Your task to perform on an android device: set an alarm Image 0: 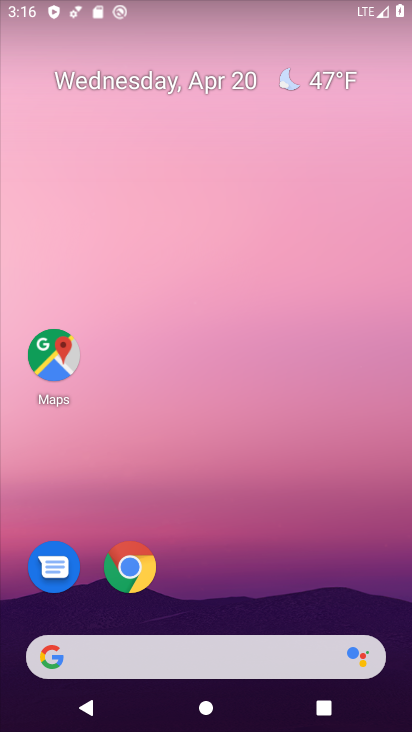
Step 0: drag from (146, 205) to (101, 50)
Your task to perform on an android device: set an alarm Image 1: 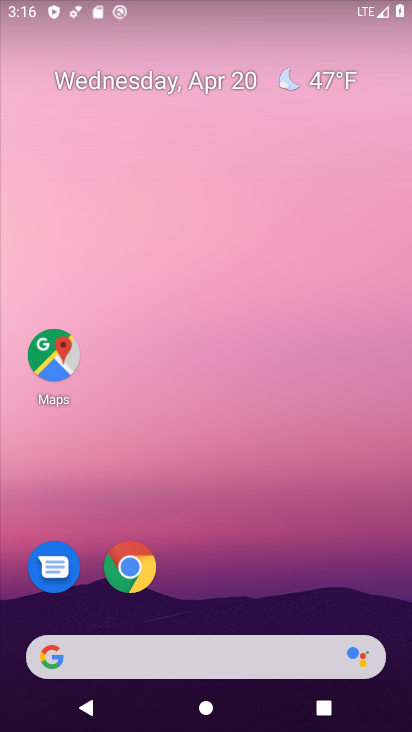
Step 1: drag from (243, 330) to (156, 5)
Your task to perform on an android device: set an alarm Image 2: 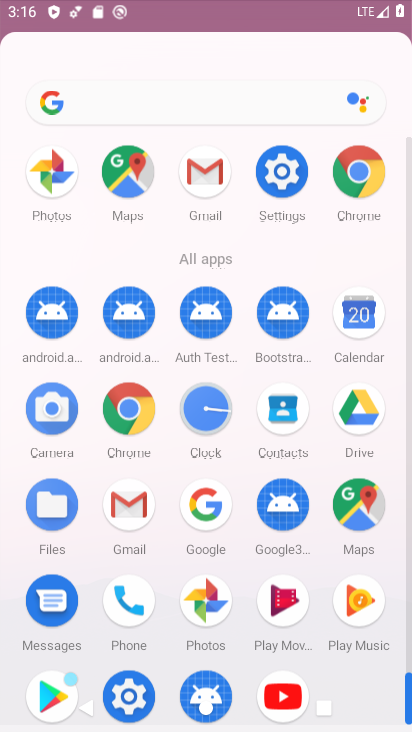
Step 2: drag from (33, 525) to (2, 230)
Your task to perform on an android device: set an alarm Image 3: 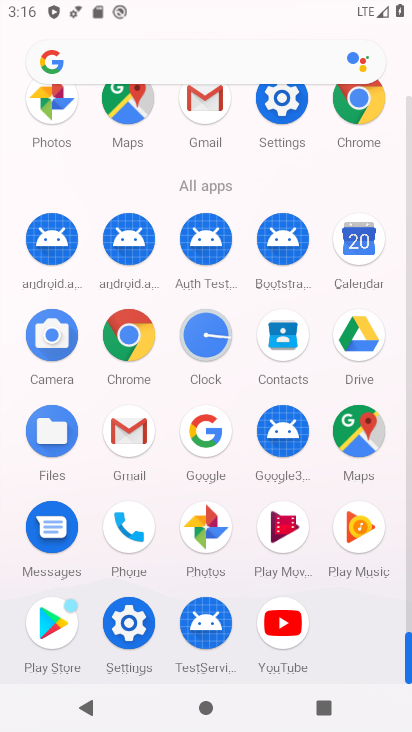
Step 3: drag from (22, 137) to (27, 318)
Your task to perform on an android device: set an alarm Image 4: 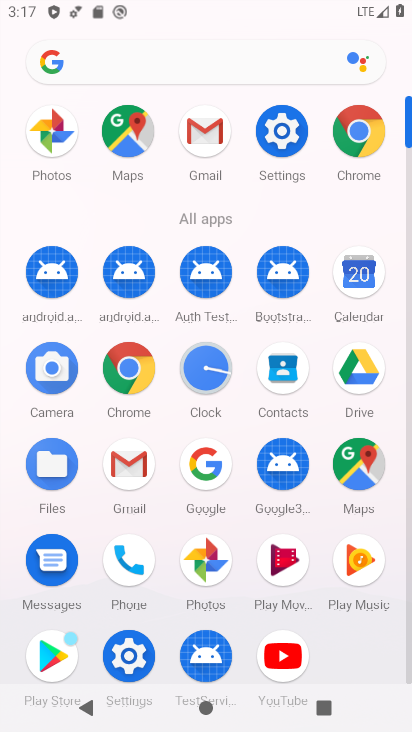
Step 4: click (208, 364)
Your task to perform on an android device: set an alarm Image 5: 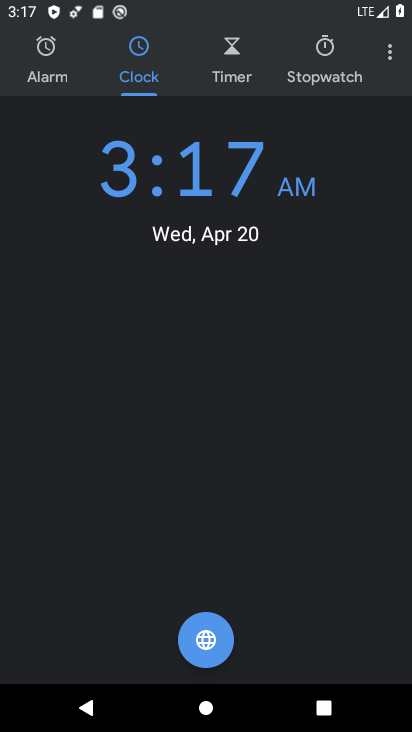
Step 5: click (49, 59)
Your task to perform on an android device: set an alarm Image 6: 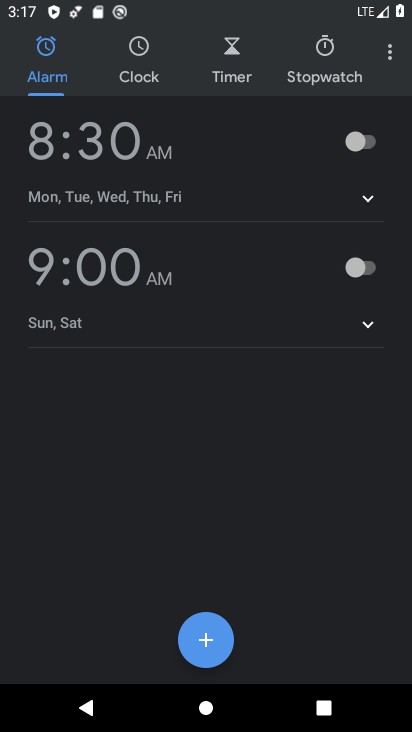
Step 6: click (203, 601)
Your task to perform on an android device: set an alarm Image 7: 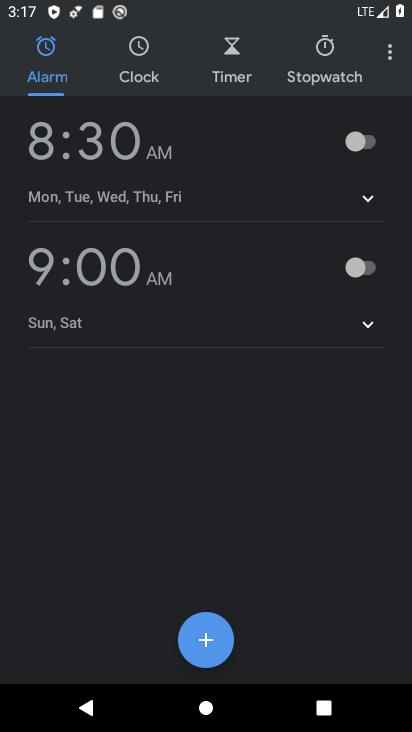
Step 7: click (210, 630)
Your task to perform on an android device: set an alarm Image 8: 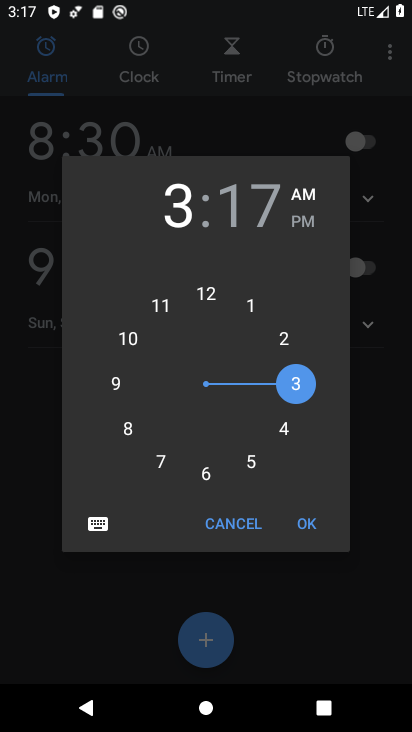
Step 8: click (270, 441)
Your task to perform on an android device: set an alarm Image 9: 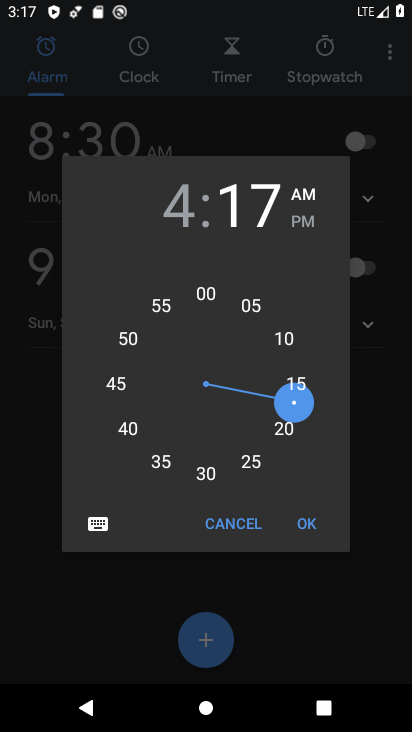
Step 9: click (139, 427)
Your task to perform on an android device: set an alarm Image 10: 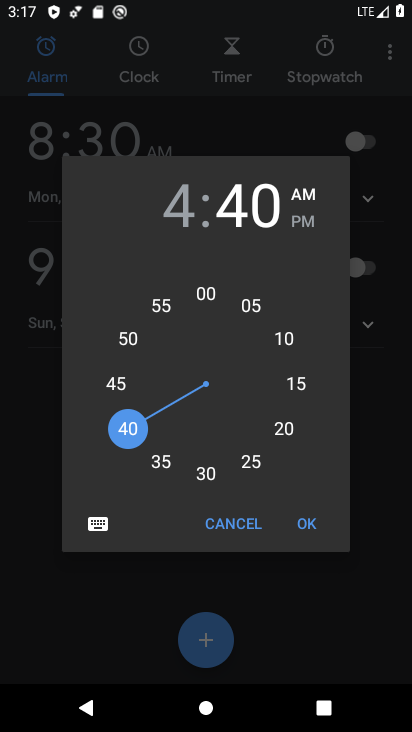
Step 10: click (294, 525)
Your task to perform on an android device: set an alarm Image 11: 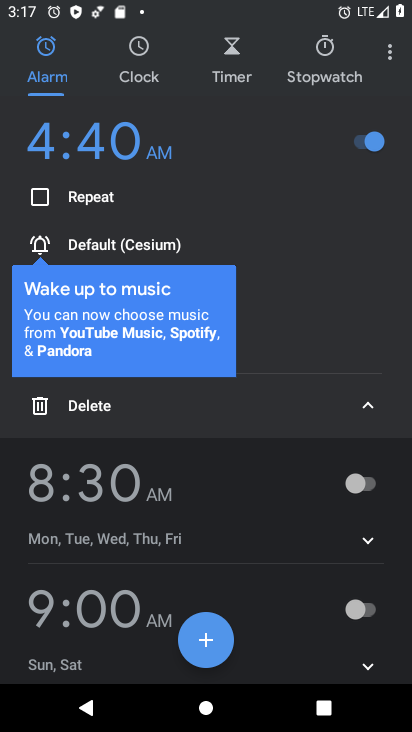
Step 11: task complete